Your task to perform on an android device: change the clock style Image 0: 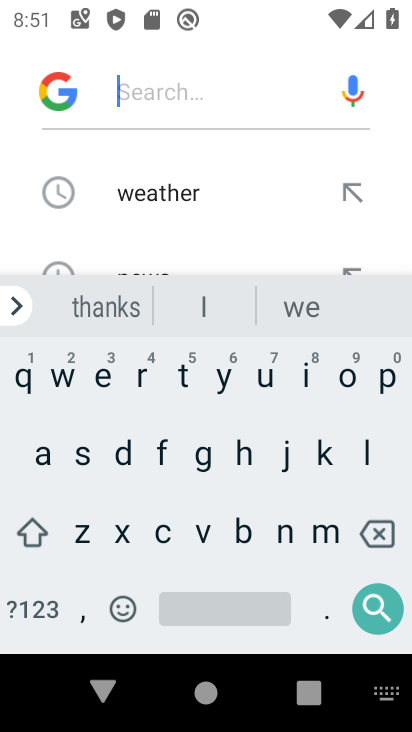
Step 0: press home button
Your task to perform on an android device: change the clock style Image 1: 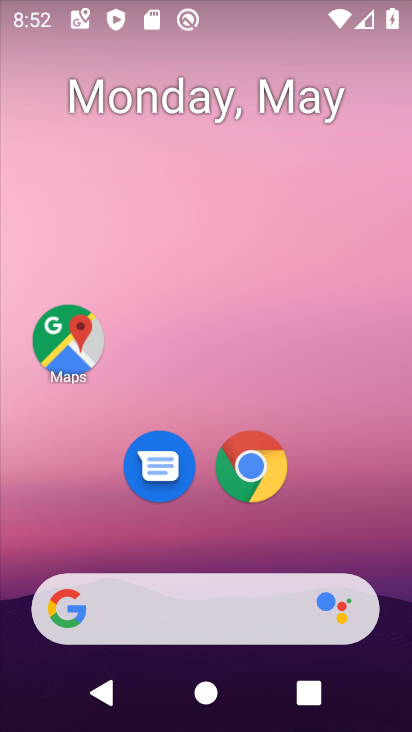
Step 1: drag from (293, 650) to (286, 60)
Your task to perform on an android device: change the clock style Image 2: 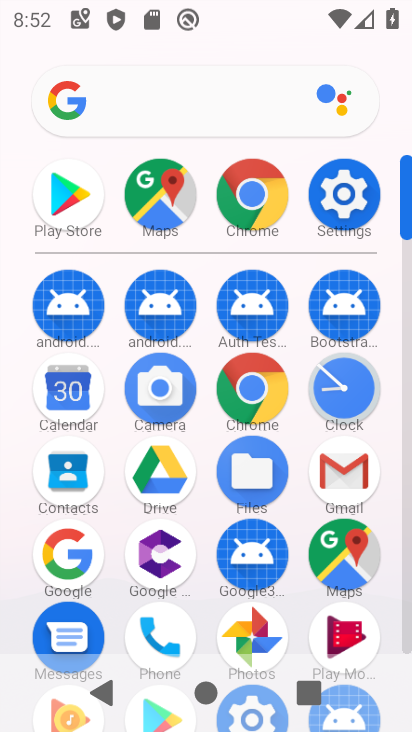
Step 2: click (330, 397)
Your task to perform on an android device: change the clock style Image 3: 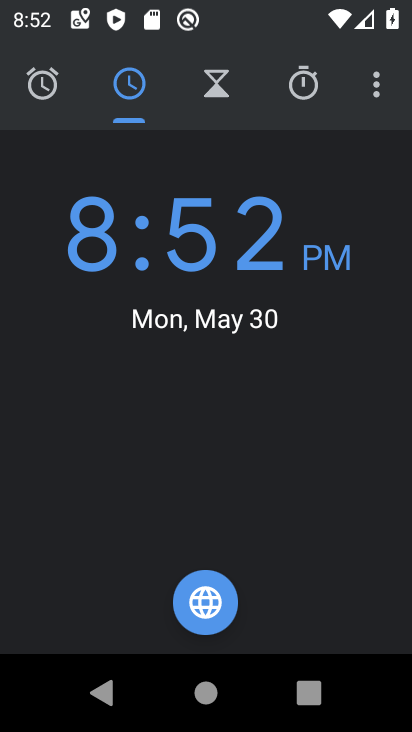
Step 3: click (366, 100)
Your task to perform on an android device: change the clock style Image 4: 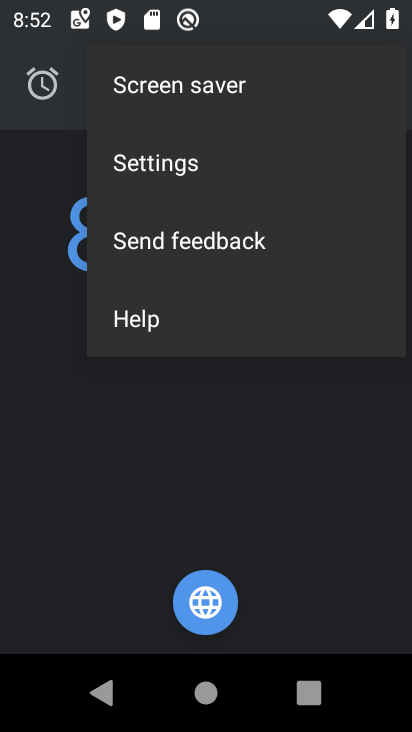
Step 4: click (144, 161)
Your task to perform on an android device: change the clock style Image 5: 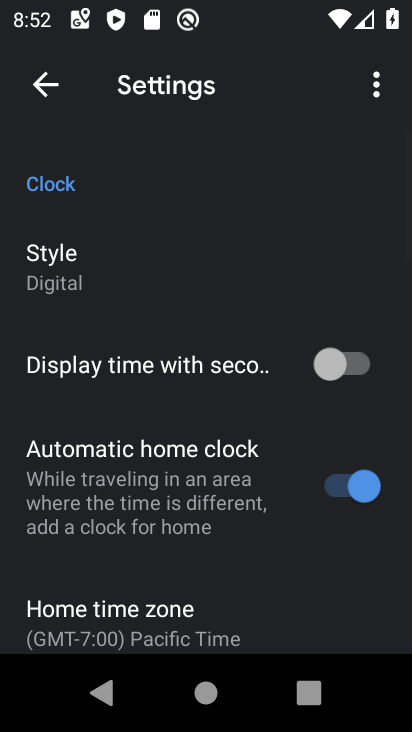
Step 5: click (96, 285)
Your task to perform on an android device: change the clock style Image 6: 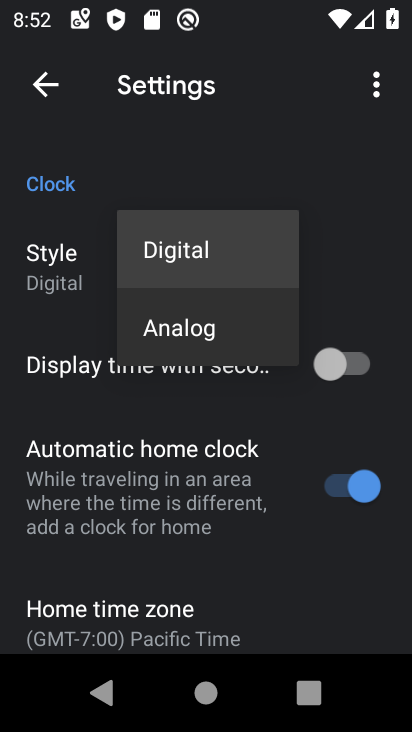
Step 6: click (173, 330)
Your task to perform on an android device: change the clock style Image 7: 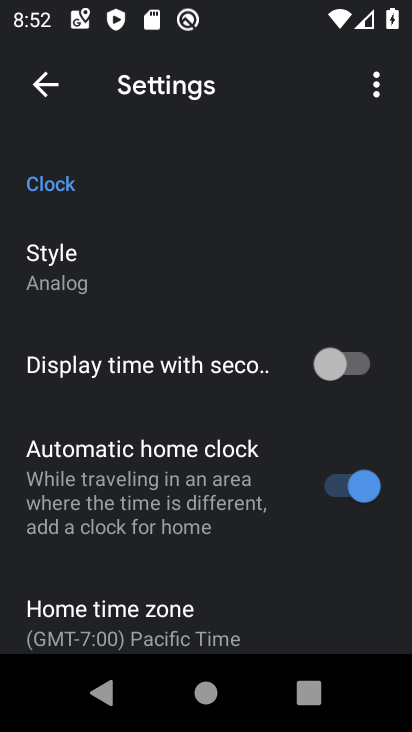
Step 7: task complete